Your task to perform on an android device: Turn off the flashlight Image 0: 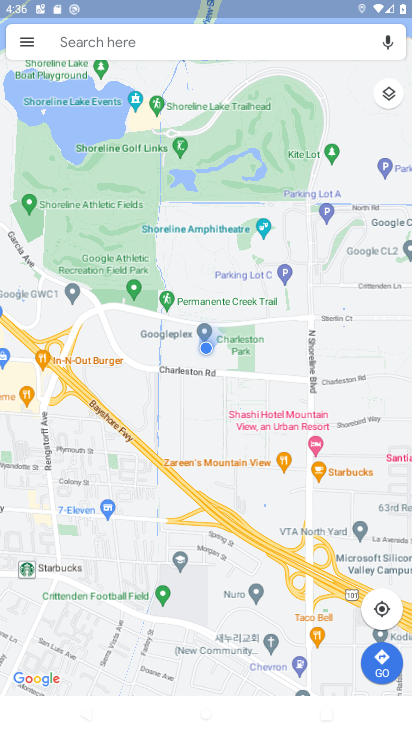
Step 0: click (348, 34)
Your task to perform on an android device: Turn off the flashlight Image 1: 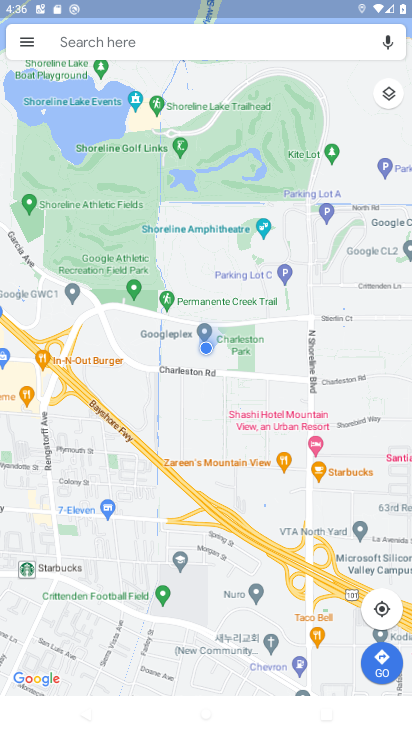
Step 1: task complete